Your task to perform on an android device: What's on my calendar today? Image 0: 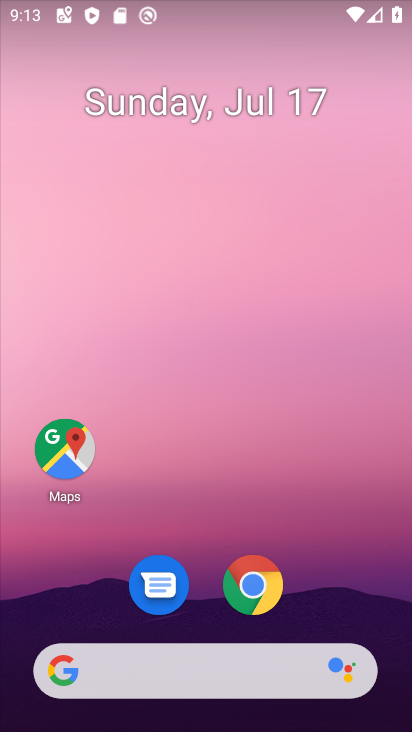
Step 0: drag from (322, 538) to (274, 17)
Your task to perform on an android device: What's on my calendar today? Image 1: 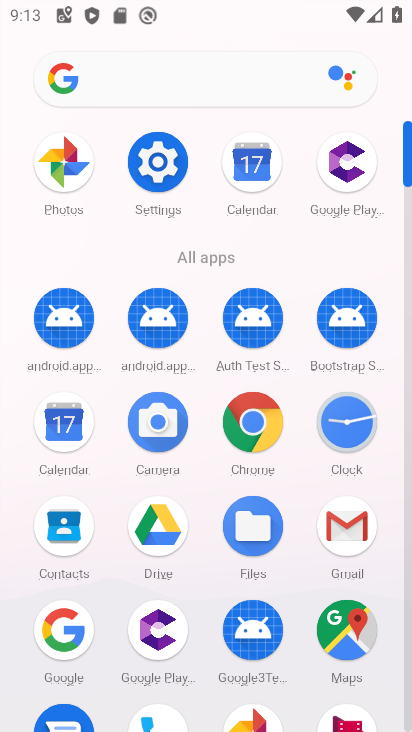
Step 1: click (66, 417)
Your task to perform on an android device: What's on my calendar today? Image 2: 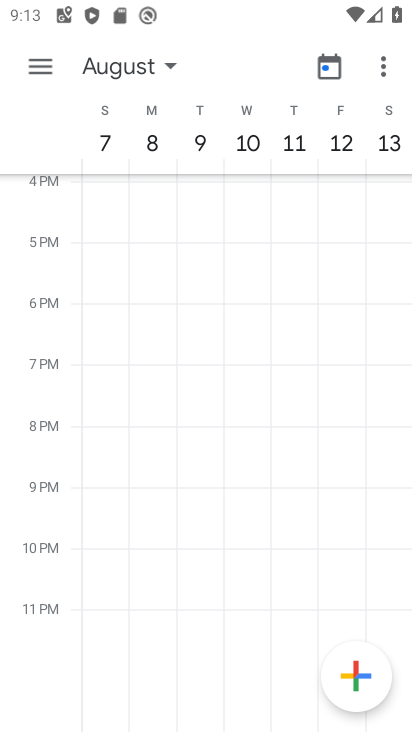
Step 2: drag from (136, 376) to (400, 496)
Your task to perform on an android device: What's on my calendar today? Image 3: 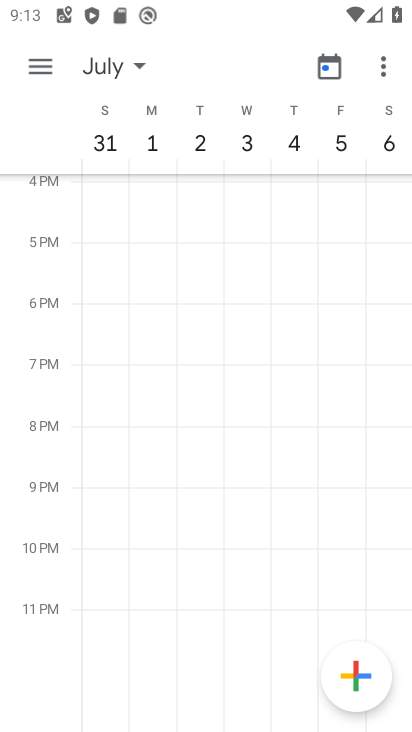
Step 3: drag from (108, 458) to (411, 499)
Your task to perform on an android device: What's on my calendar today? Image 4: 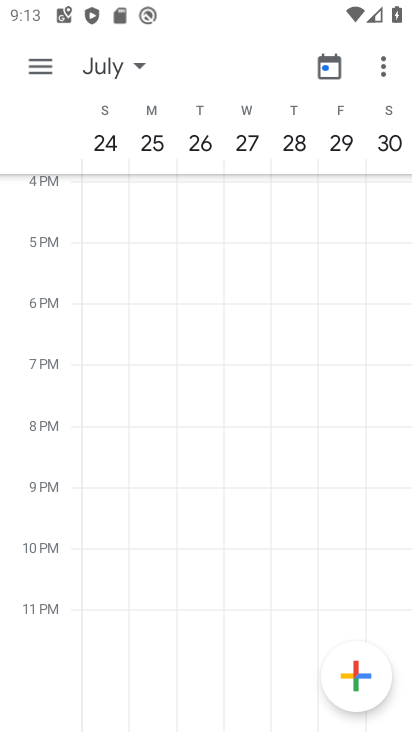
Step 4: drag from (103, 449) to (400, 457)
Your task to perform on an android device: What's on my calendar today? Image 5: 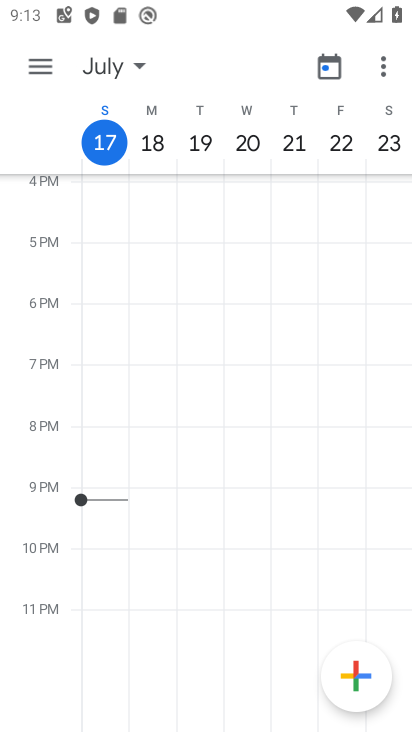
Step 5: click (109, 142)
Your task to perform on an android device: What's on my calendar today? Image 6: 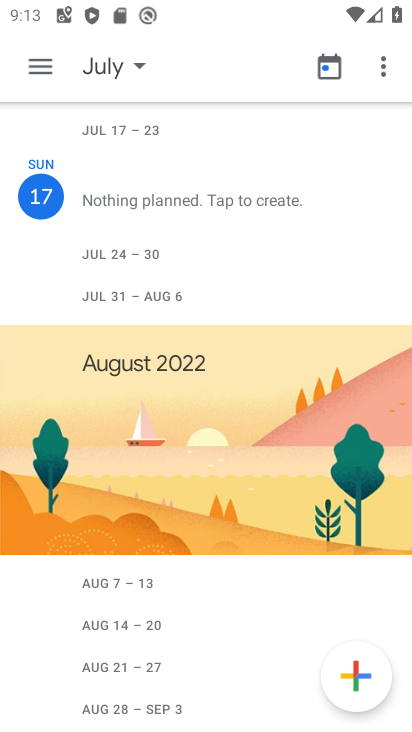
Step 6: task complete